Your task to perform on an android device: Open battery settings Image 0: 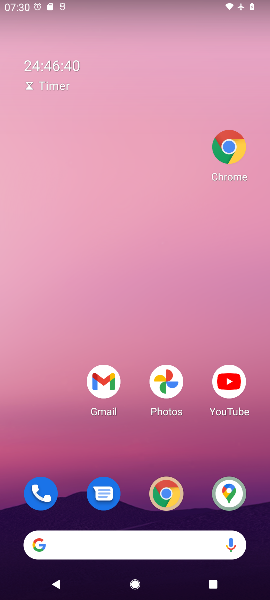
Step 0: press home button
Your task to perform on an android device: Open battery settings Image 1: 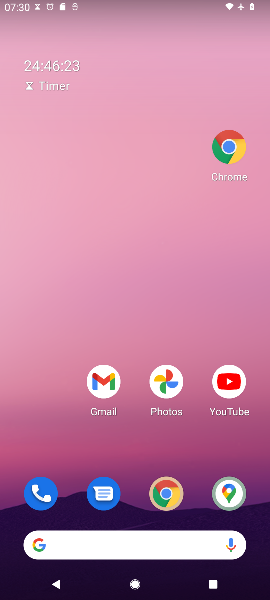
Step 1: drag from (141, 519) to (69, 99)
Your task to perform on an android device: Open battery settings Image 2: 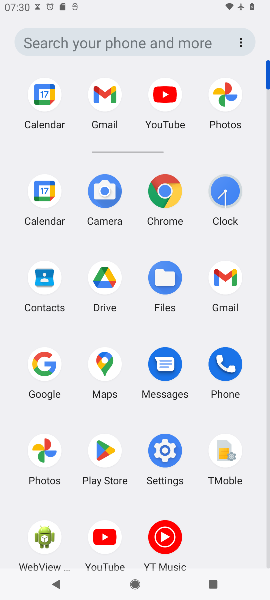
Step 2: click (170, 460)
Your task to perform on an android device: Open battery settings Image 3: 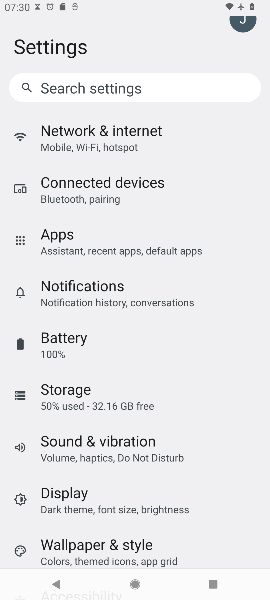
Step 3: click (63, 347)
Your task to perform on an android device: Open battery settings Image 4: 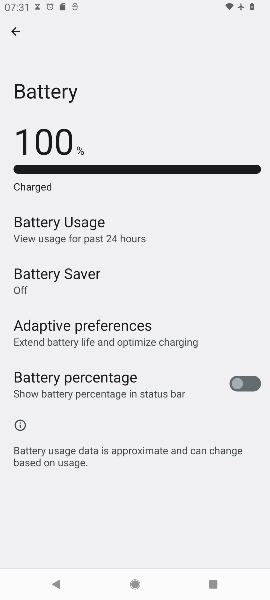
Step 4: task complete